Your task to perform on an android device: open app "HBO Max: Stream TV & Movies" Image 0: 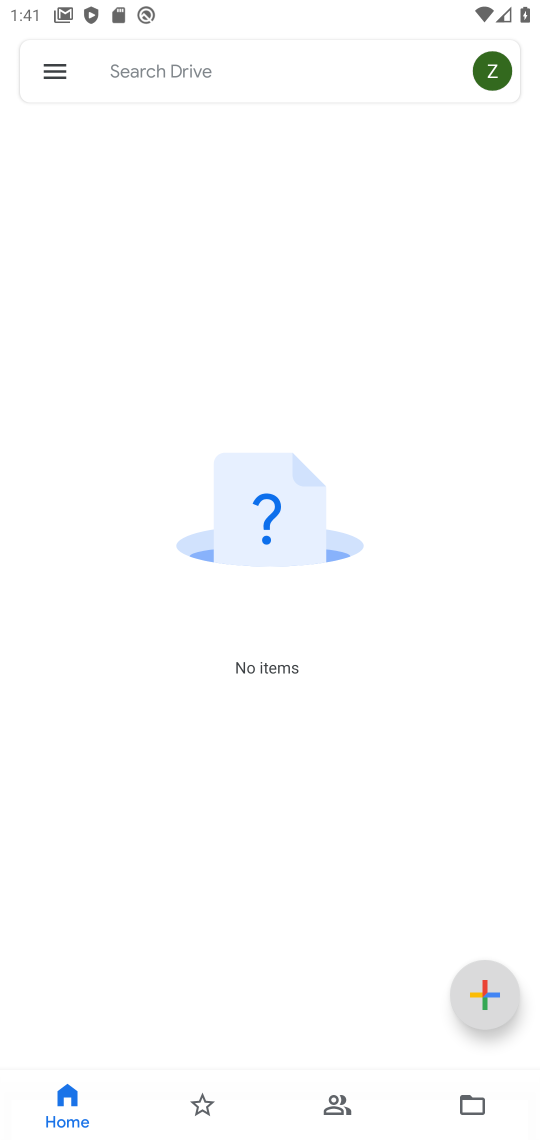
Step 0: press home button
Your task to perform on an android device: open app "HBO Max: Stream TV & Movies" Image 1: 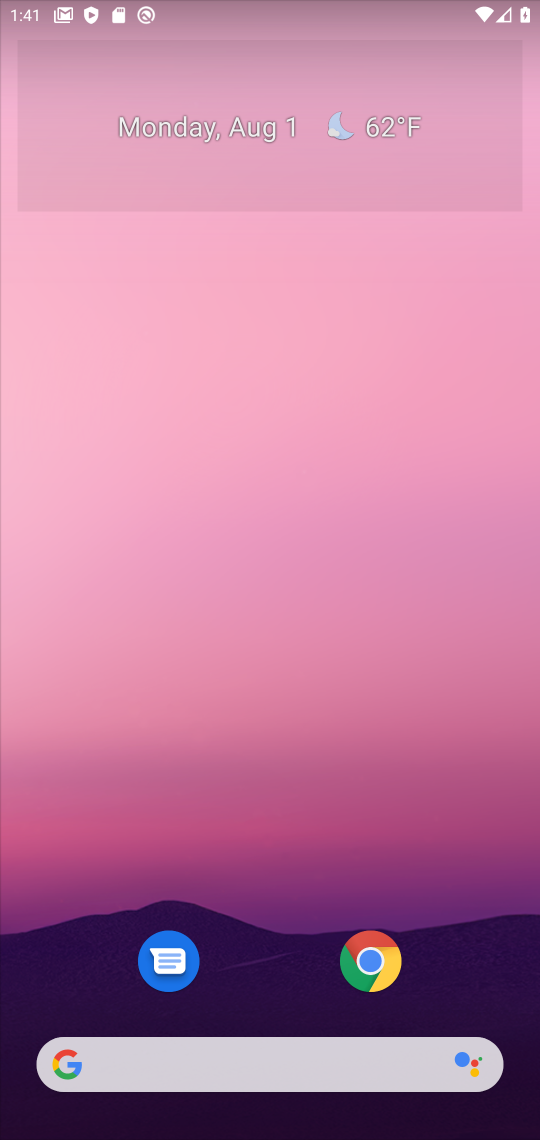
Step 1: drag from (261, 897) to (353, 3)
Your task to perform on an android device: open app "HBO Max: Stream TV & Movies" Image 2: 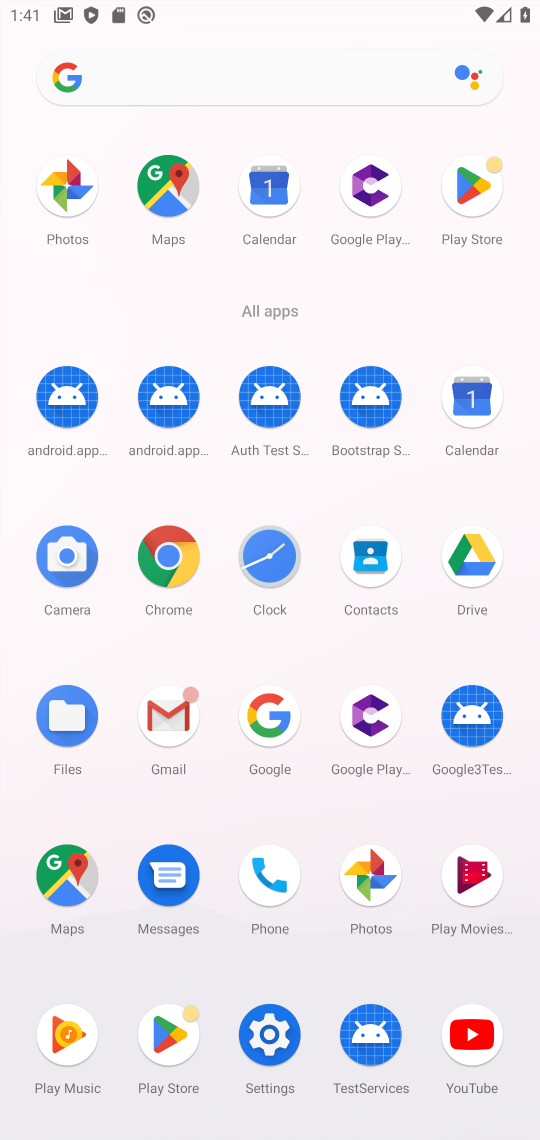
Step 2: click (464, 185)
Your task to perform on an android device: open app "HBO Max: Stream TV & Movies" Image 3: 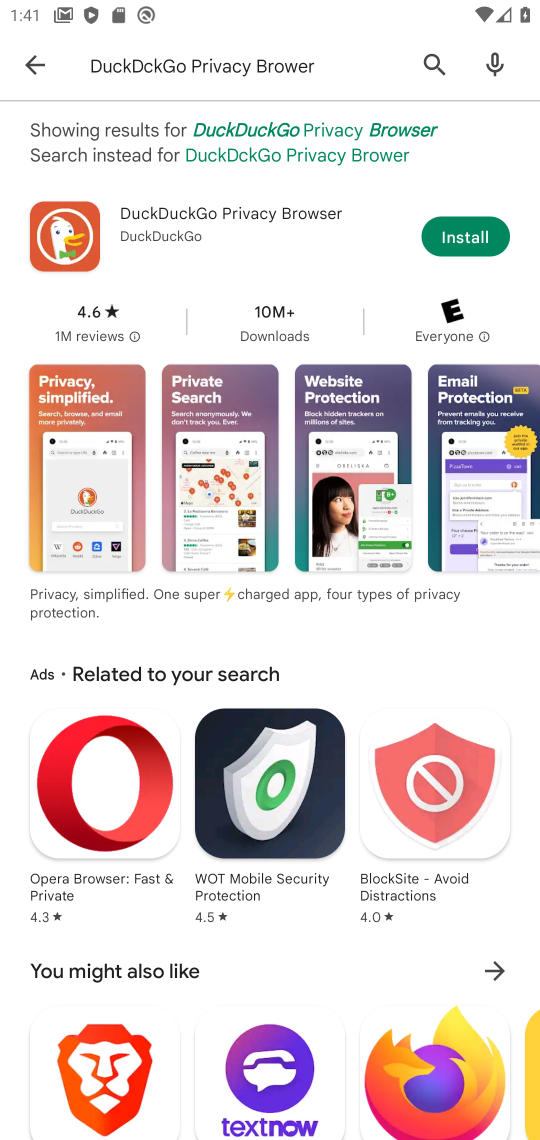
Step 3: click (292, 64)
Your task to perform on an android device: open app "HBO Max: Stream TV & Movies" Image 4: 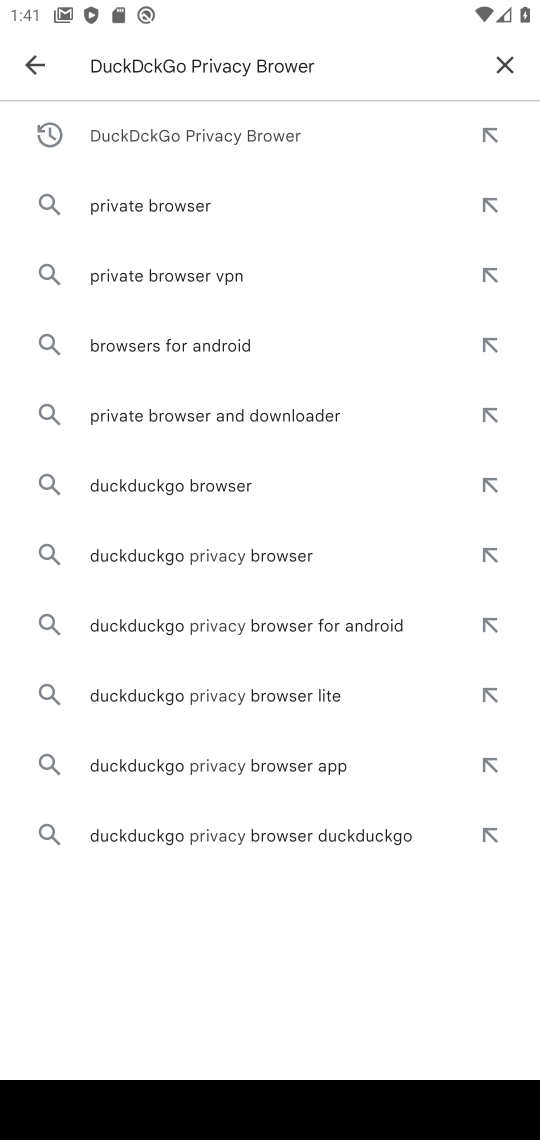
Step 4: click (502, 60)
Your task to perform on an android device: open app "HBO Max: Stream TV & Movies" Image 5: 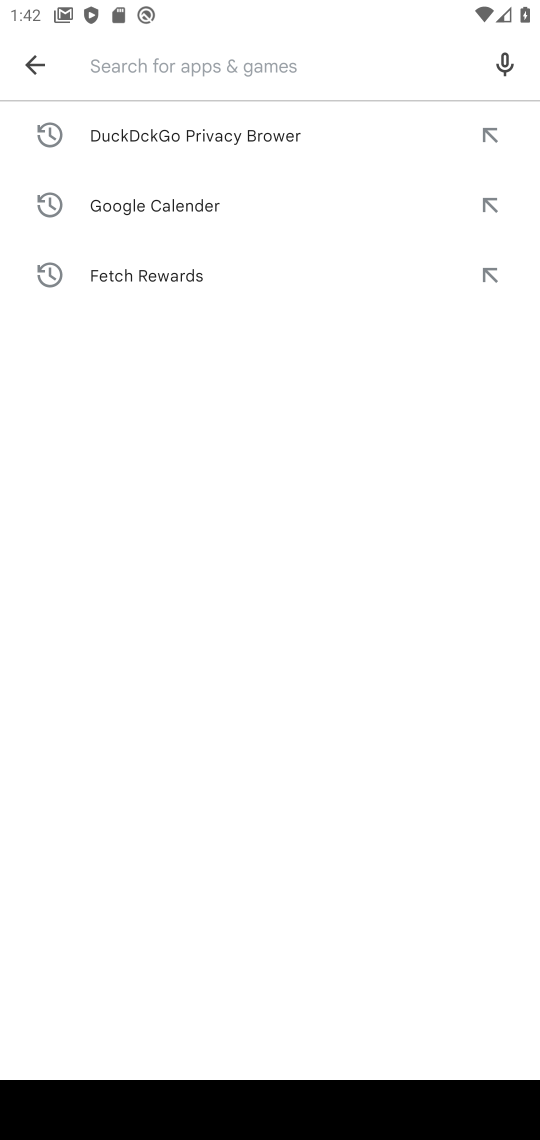
Step 5: type "HBO Max:  Stream TV & Movie"
Your task to perform on an android device: open app "HBO Max: Stream TV & Movies" Image 6: 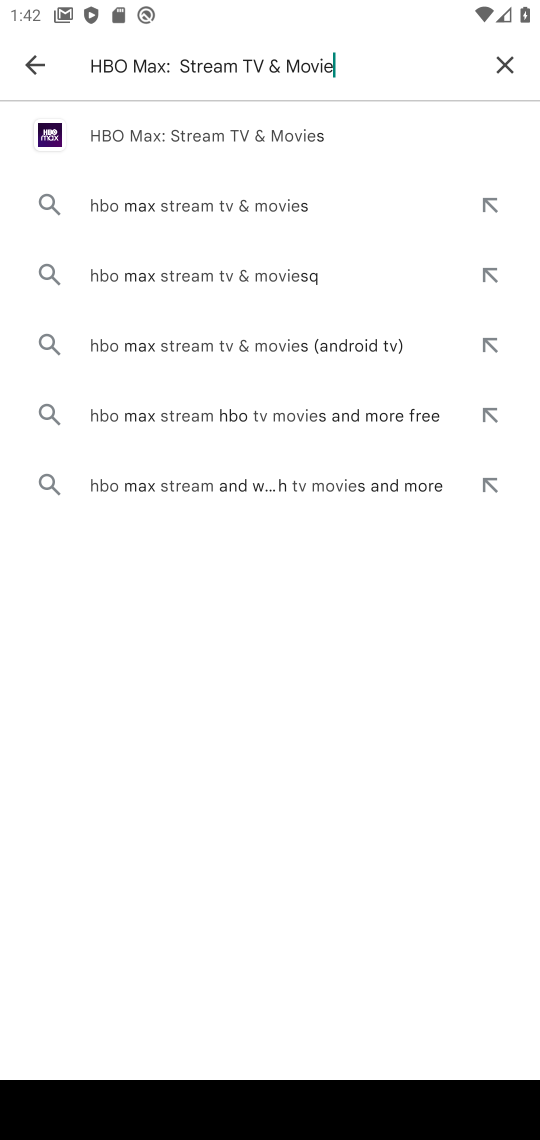
Step 6: click (267, 129)
Your task to perform on an android device: open app "HBO Max: Stream TV & Movies" Image 7: 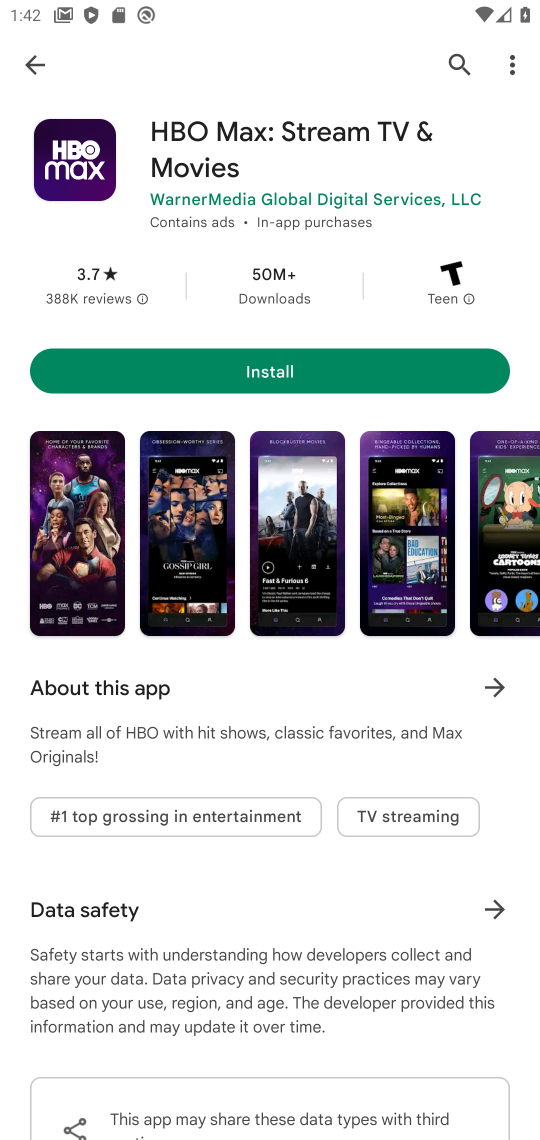
Step 7: click (308, 177)
Your task to perform on an android device: open app "HBO Max: Stream TV & Movies" Image 8: 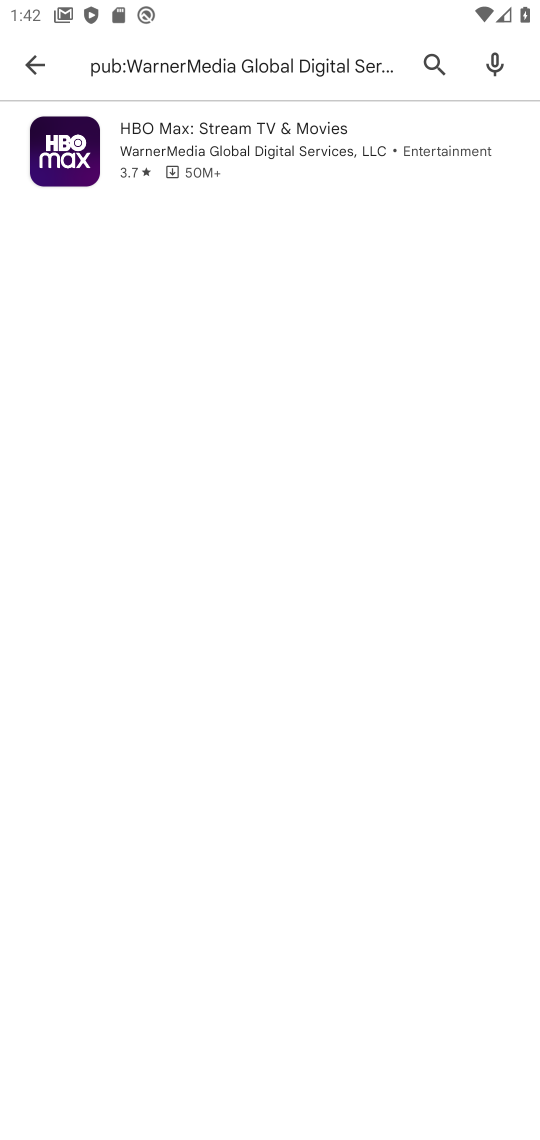
Step 8: click (345, 164)
Your task to perform on an android device: open app "HBO Max: Stream TV & Movies" Image 9: 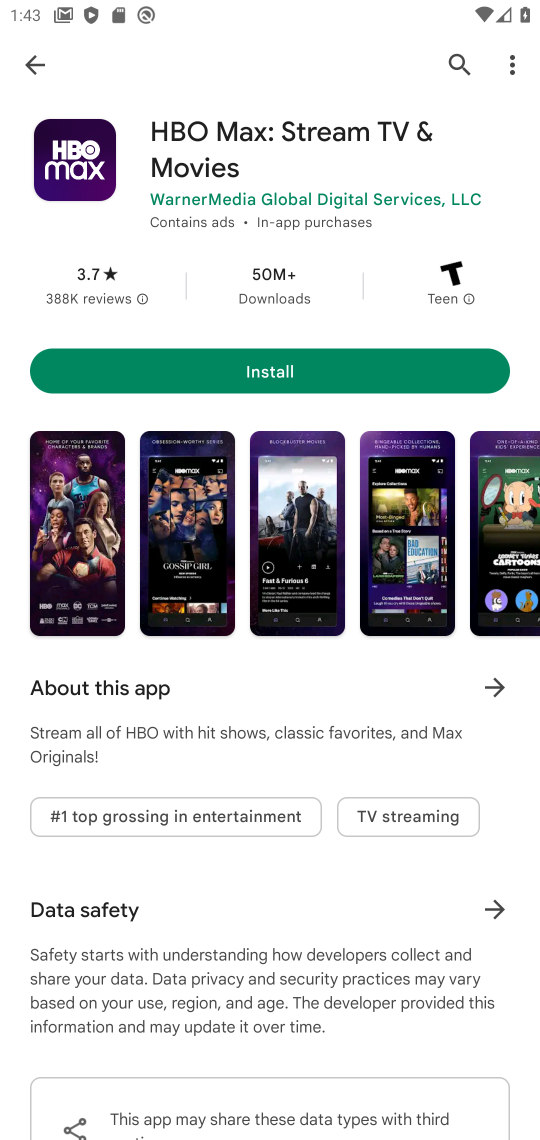
Step 9: task complete